Your task to perform on an android device: clear all cookies in the chrome app Image 0: 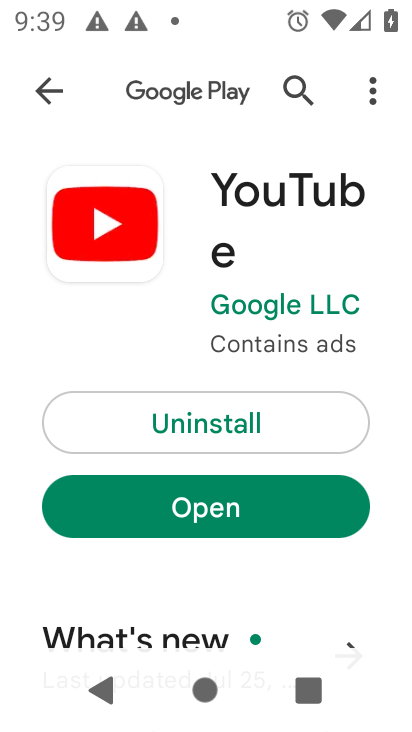
Step 0: press home button
Your task to perform on an android device: clear all cookies in the chrome app Image 1: 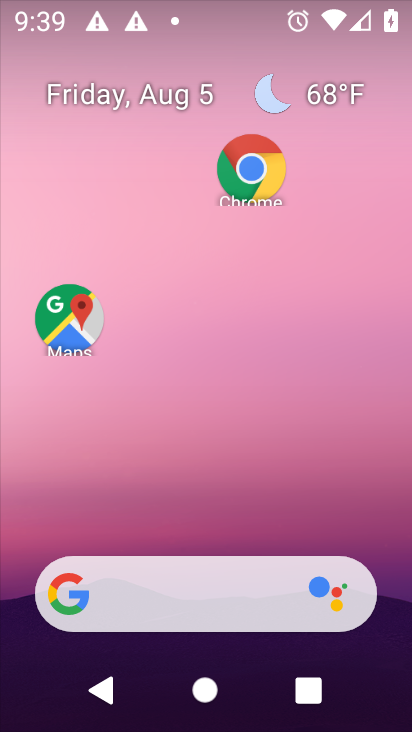
Step 1: click (247, 167)
Your task to perform on an android device: clear all cookies in the chrome app Image 2: 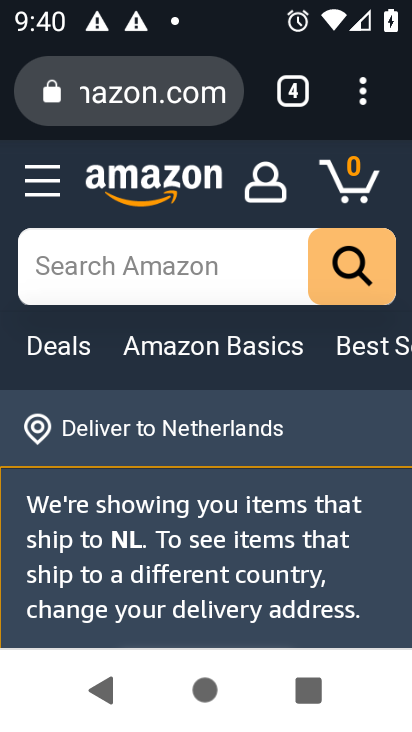
Step 2: click (357, 91)
Your task to perform on an android device: clear all cookies in the chrome app Image 3: 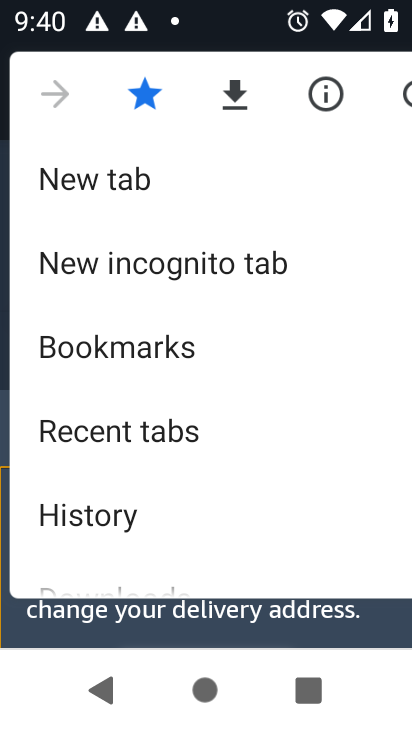
Step 3: drag from (140, 542) to (120, 255)
Your task to perform on an android device: clear all cookies in the chrome app Image 4: 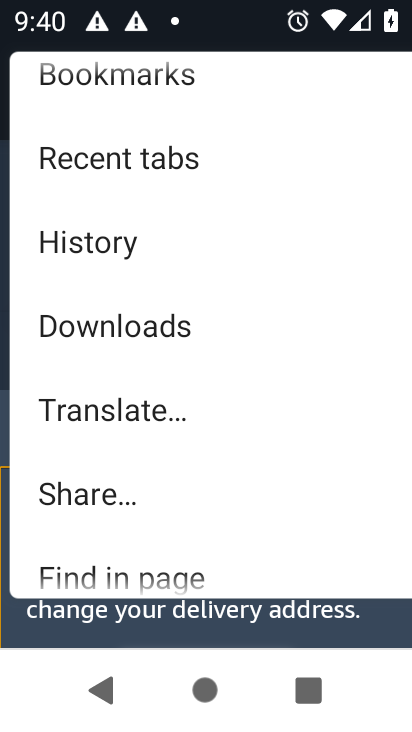
Step 4: click (121, 254)
Your task to perform on an android device: clear all cookies in the chrome app Image 5: 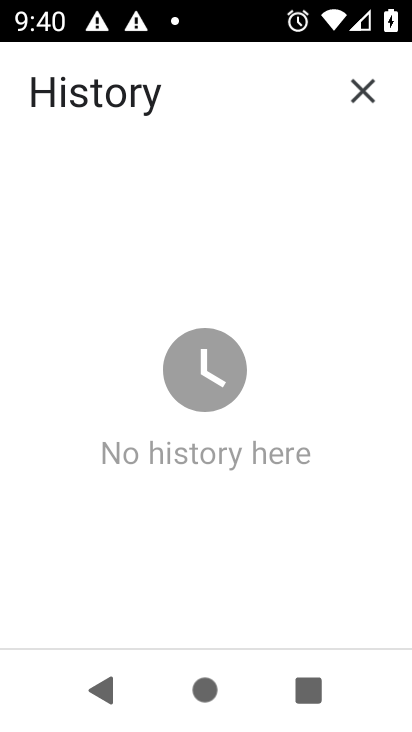
Step 5: task complete